Your task to perform on an android device: Set the phone to "Do not disturb". Image 0: 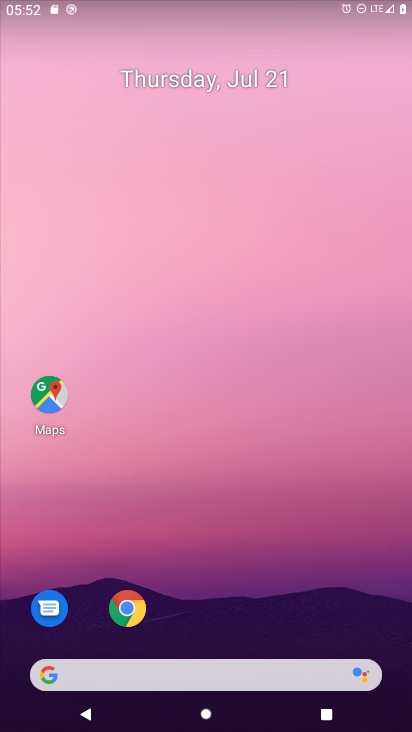
Step 0: drag from (268, 664) to (292, 6)
Your task to perform on an android device: Set the phone to "Do not disturb". Image 1: 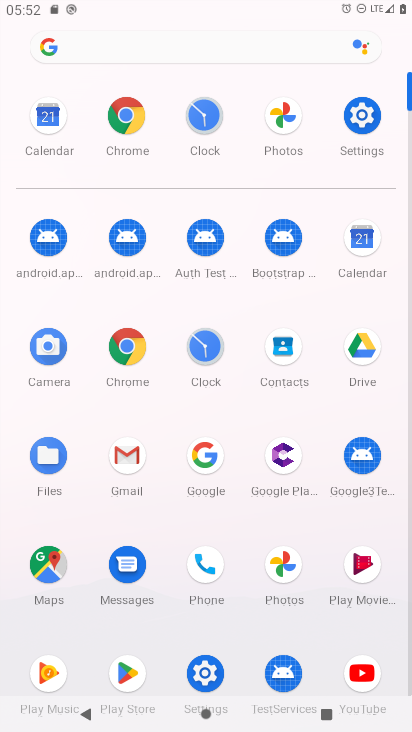
Step 1: click (374, 106)
Your task to perform on an android device: Set the phone to "Do not disturb". Image 2: 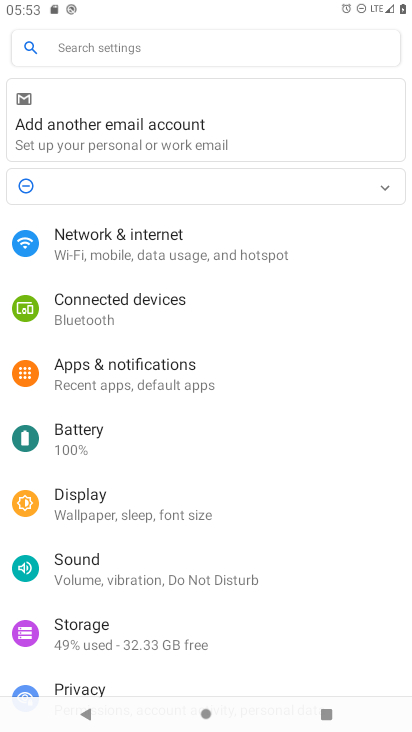
Step 2: click (125, 575)
Your task to perform on an android device: Set the phone to "Do not disturb". Image 3: 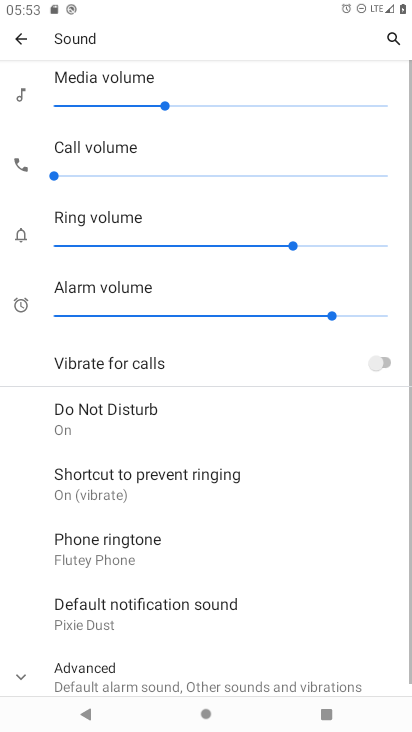
Step 3: click (144, 412)
Your task to perform on an android device: Set the phone to "Do not disturb". Image 4: 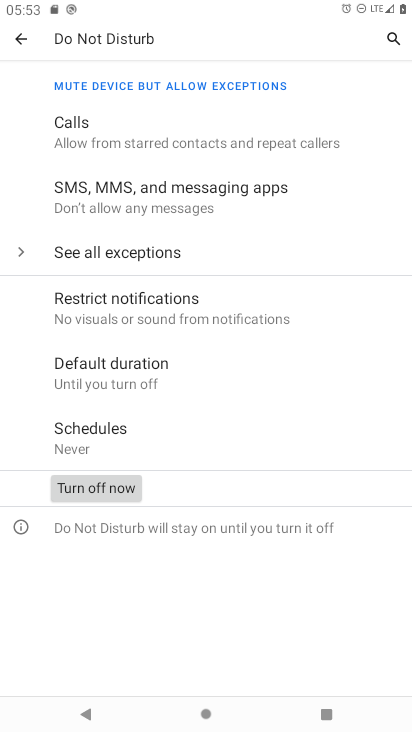
Step 4: task complete